Your task to perform on an android device: Go to privacy settings Image 0: 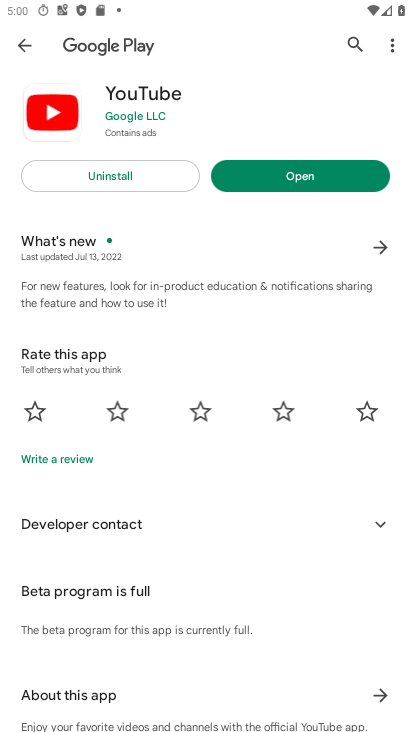
Step 0: press home button
Your task to perform on an android device: Go to privacy settings Image 1: 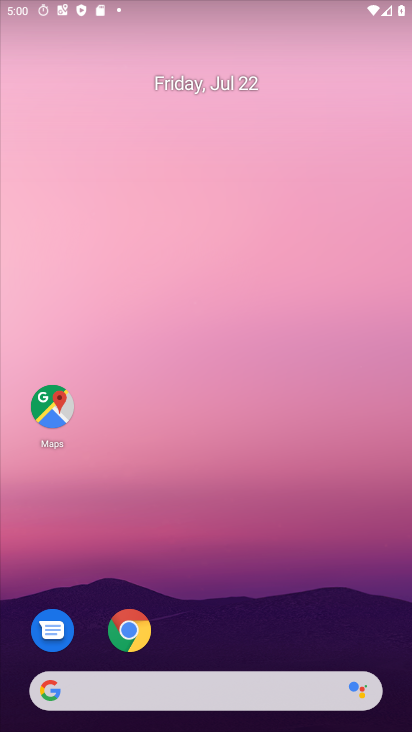
Step 1: drag from (165, 593) to (359, 3)
Your task to perform on an android device: Go to privacy settings Image 2: 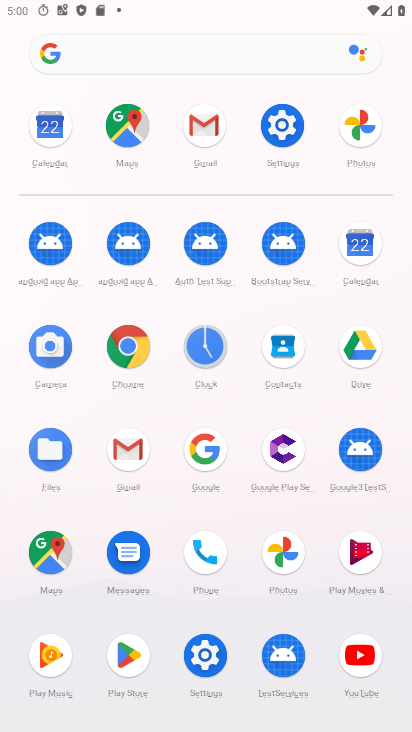
Step 2: click (197, 641)
Your task to perform on an android device: Go to privacy settings Image 3: 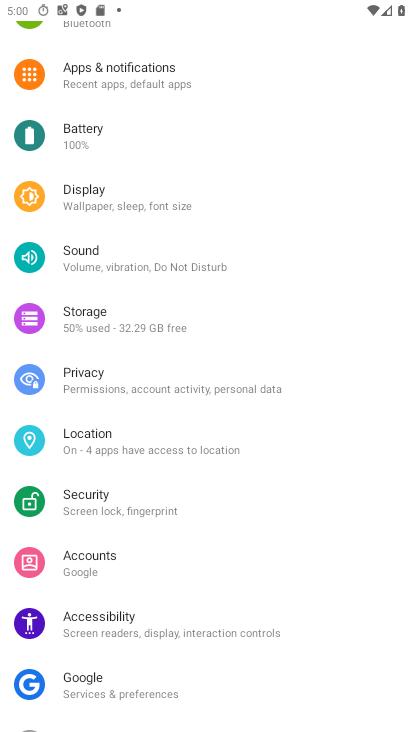
Step 3: click (98, 372)
Your task to perform on an android device: Go to privacy settings Image 4: 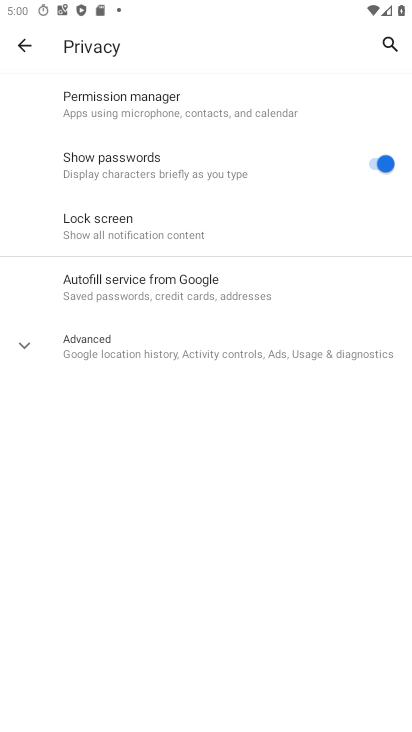
Step 4: task complete